Your task to perform on an android device: Is it going to rain this weekend? Image 0: 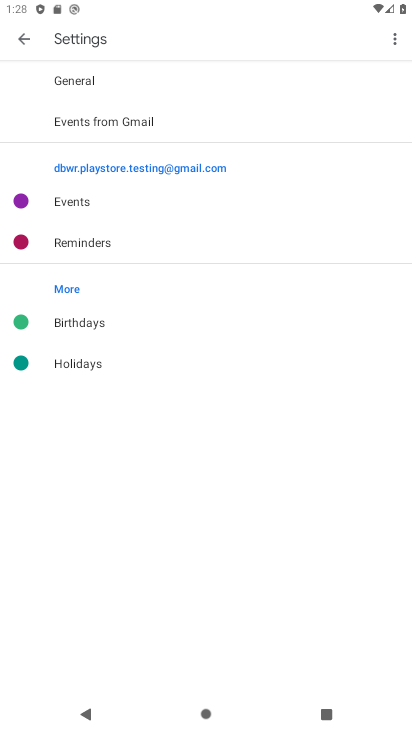
Step 0: press home button
Your task to perform on an android device: Is it going to rain this weekend? Image 1: 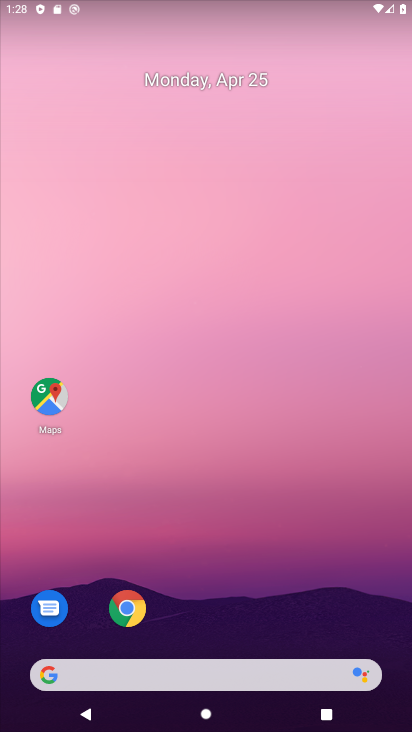
Step 1: click (240, 677)
Your task to perform on an android device: Is it going to rain this weekend? Image 2: 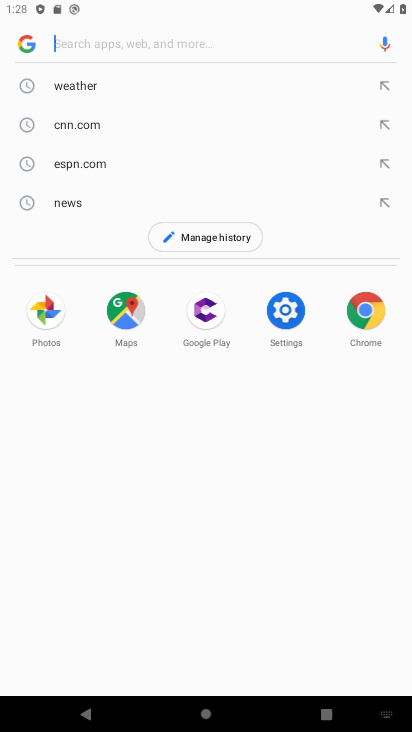
Step 2: click (82, 90)
Your task to perform on an android device: Is it going to rain this weekend? Image 3: 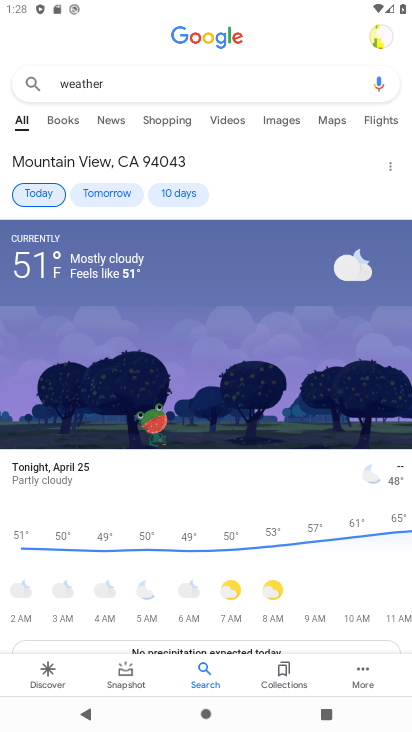
Step 3: click (181, 192)
Your task to perform on an android device: Is it going to rain this weekend? Image 4: 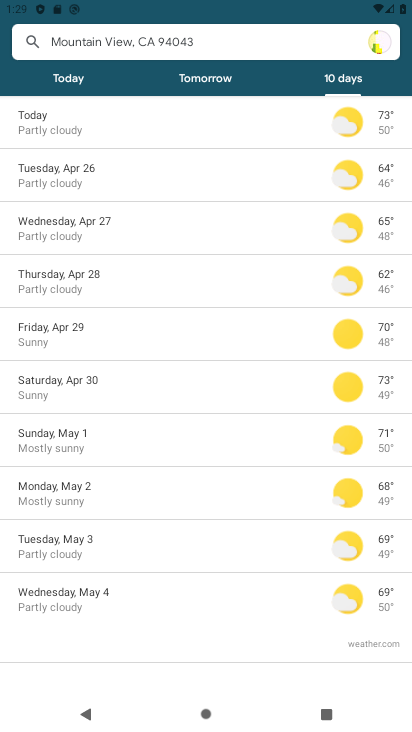
Step 4: task complete